Your task to perform on an android device: Clear the cart on target.com. Image 0: 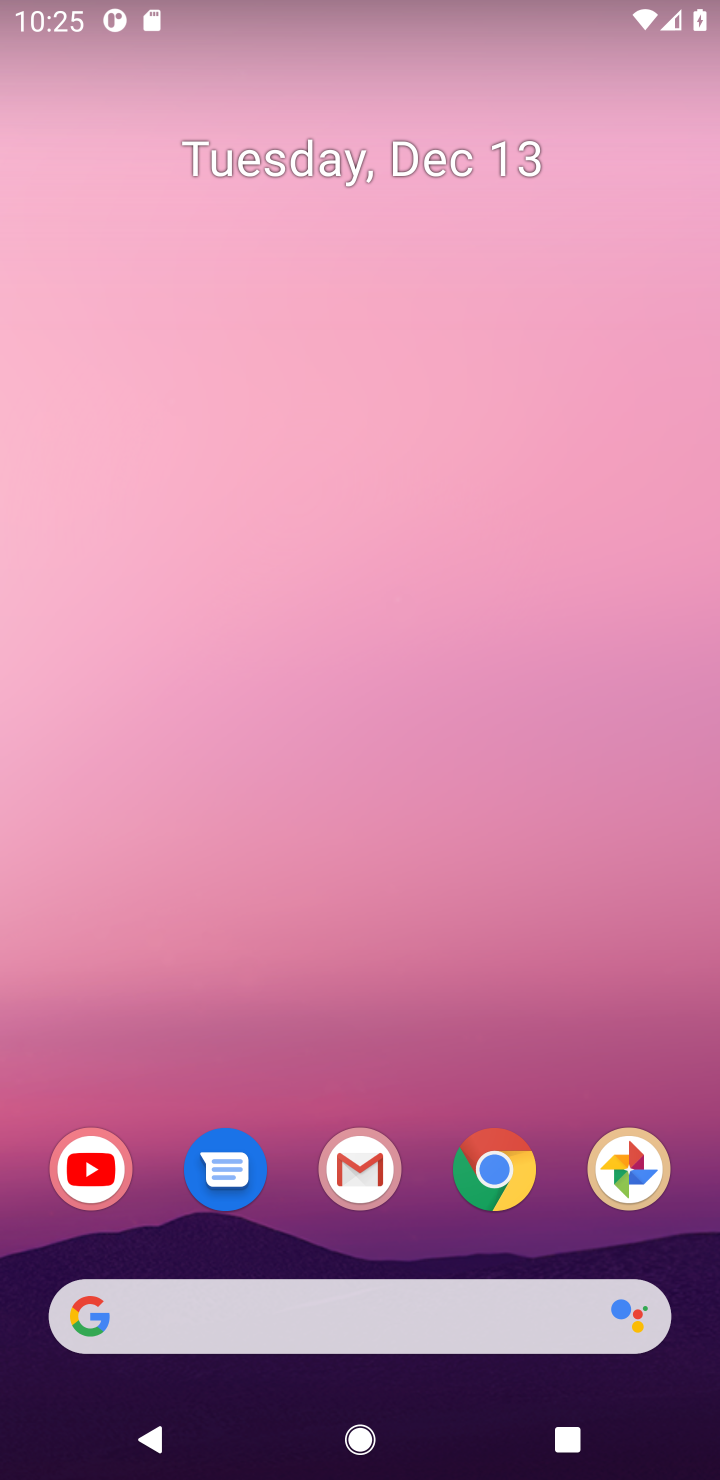
Step 0: click (468, 1294)
Your task to perform on an android device: Clear the cart on target.com. Image 1: 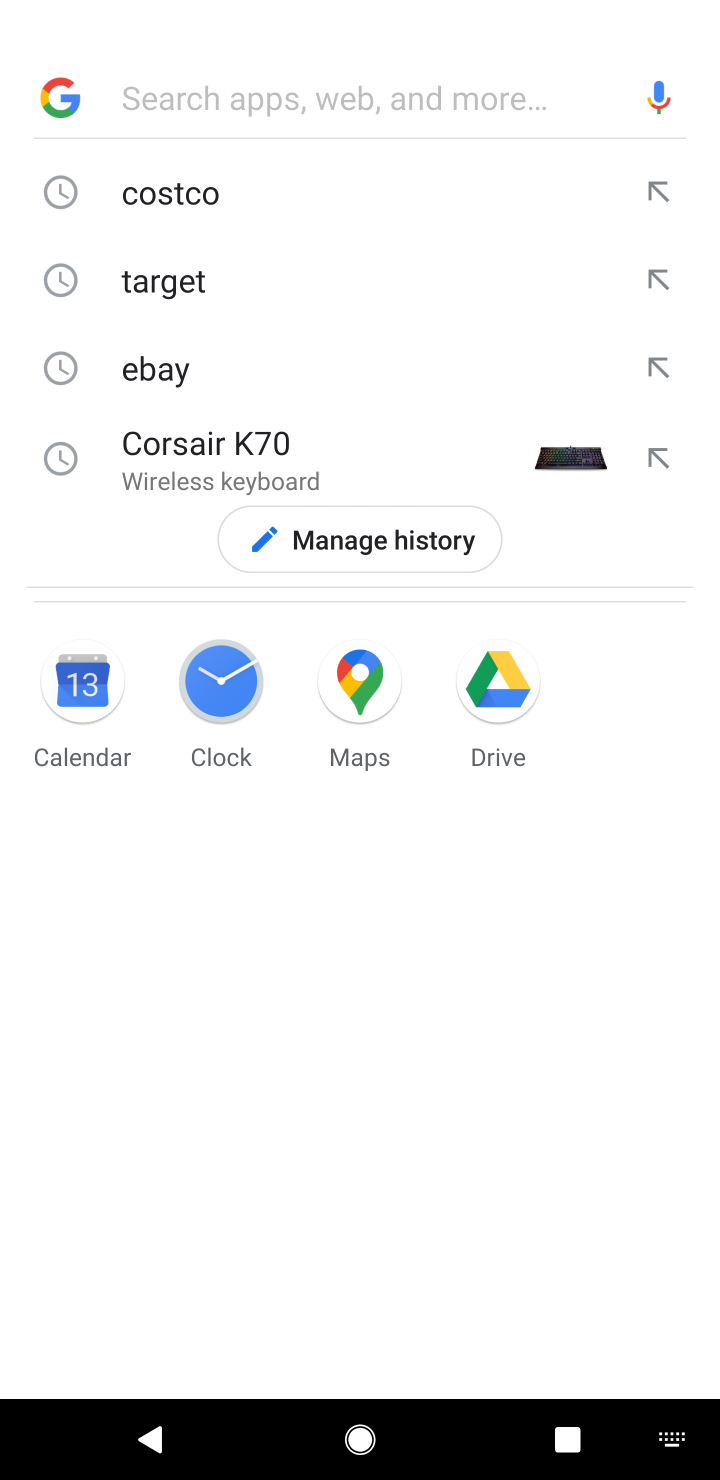
Step 1: type "target"
Your task to perform on an android device: Clear the cart on target.com. Image 2: 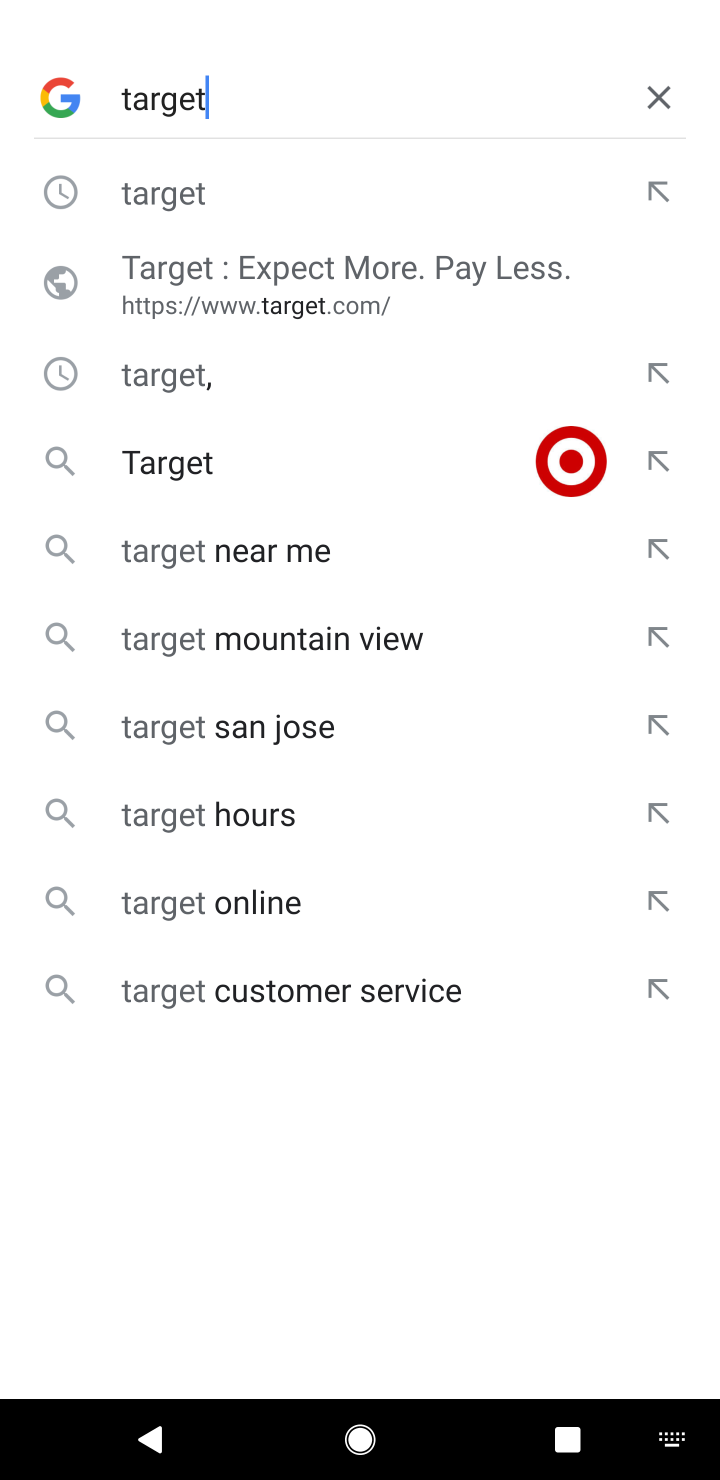
Step 2: click (197, 438)
Your task to perform on an android device: Clear the cart on target.com. Image 3: 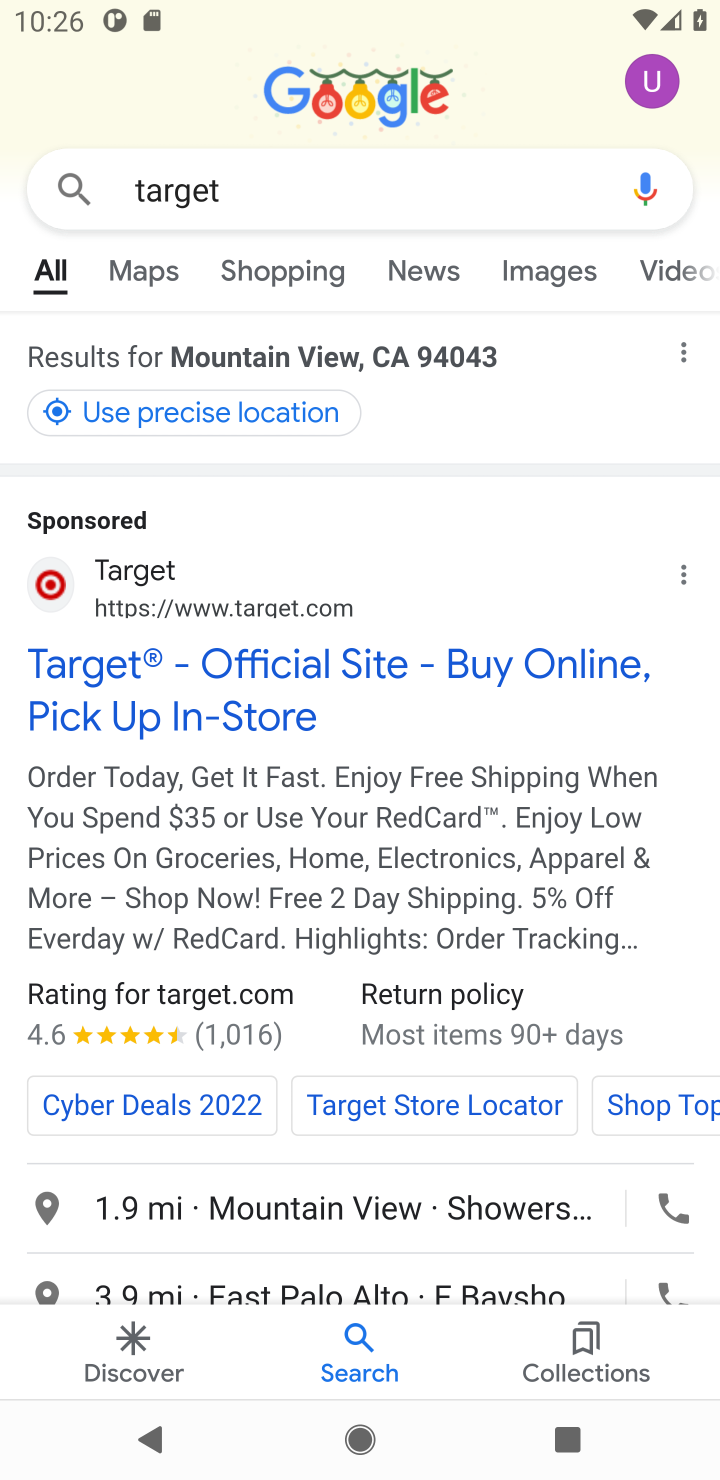
Step 3: click (120, 694)
Your task to perform on an android device: Clear the cart on target.com. Image 4: 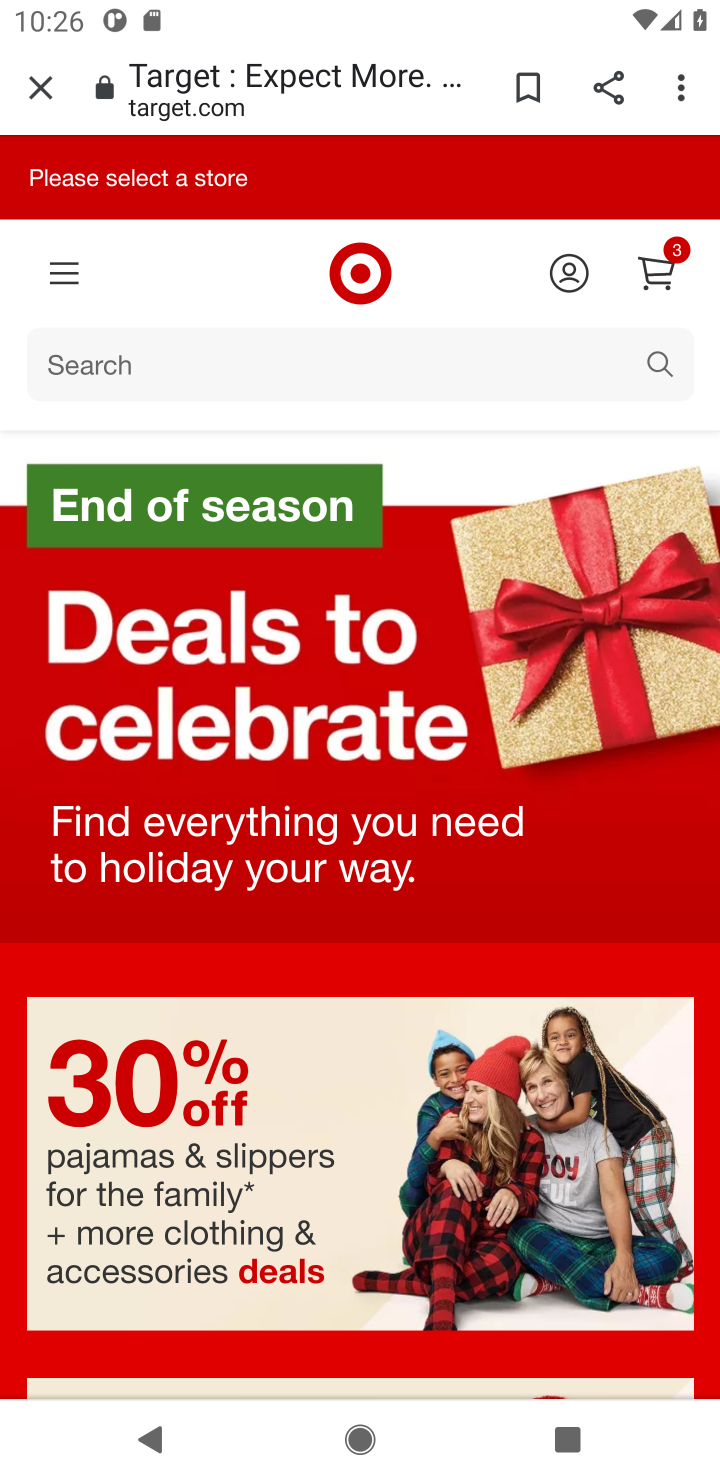
Step 4: click (670, 258)
Your task to perform on an android device: Clear the cart on target.com. Image 5: 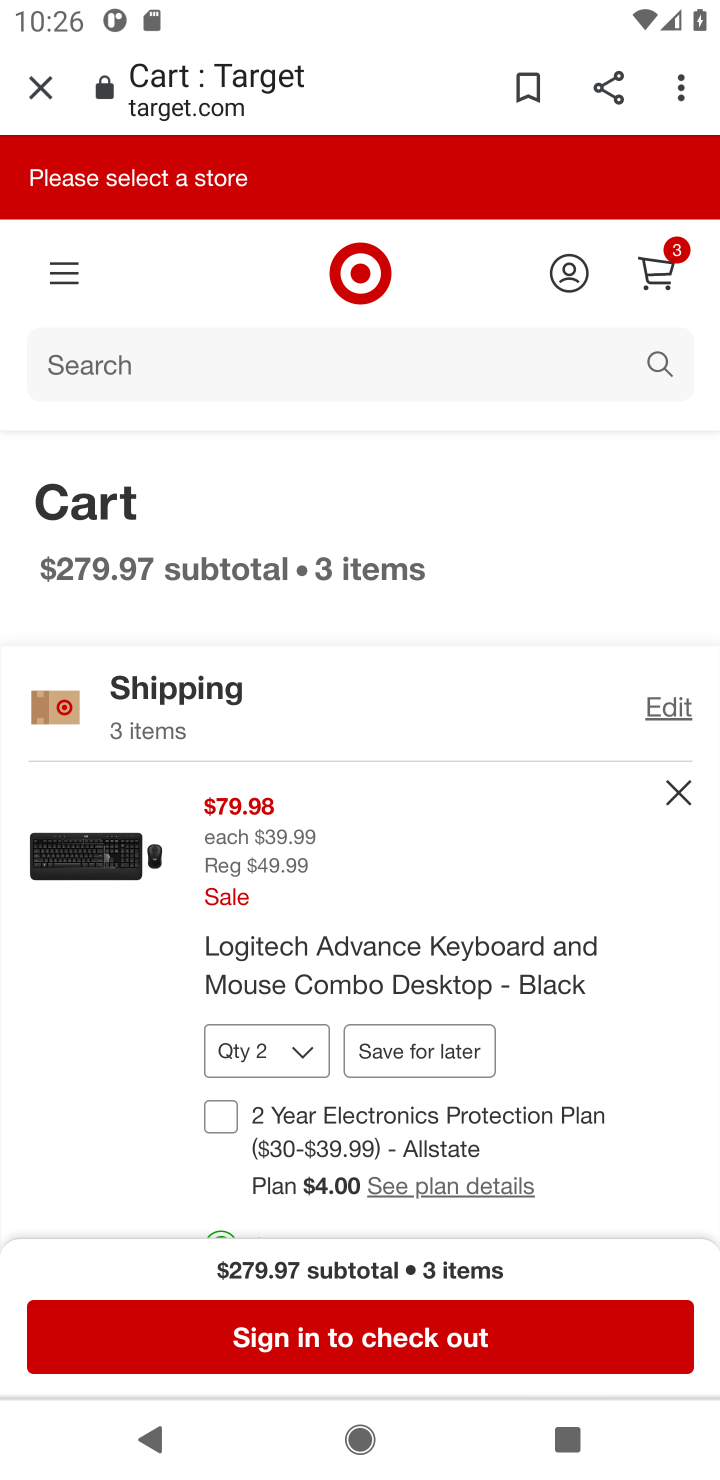
Step 5: click (665, 805)
Your task to perform on an android device: Clear the cart on target.com. Image 6: 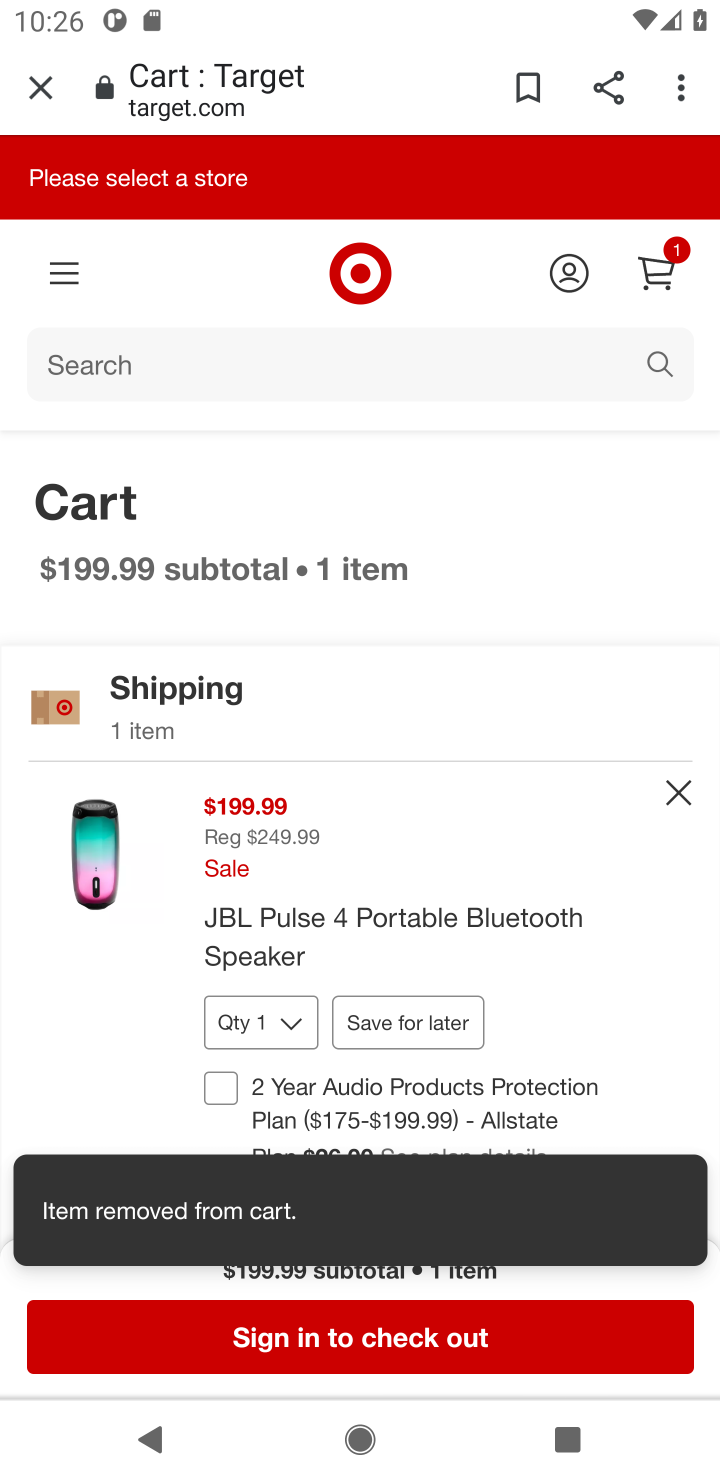
Step 6: click (665, 805)
Your task to perform on an android device: Clear the cart on target.com. Image 7: 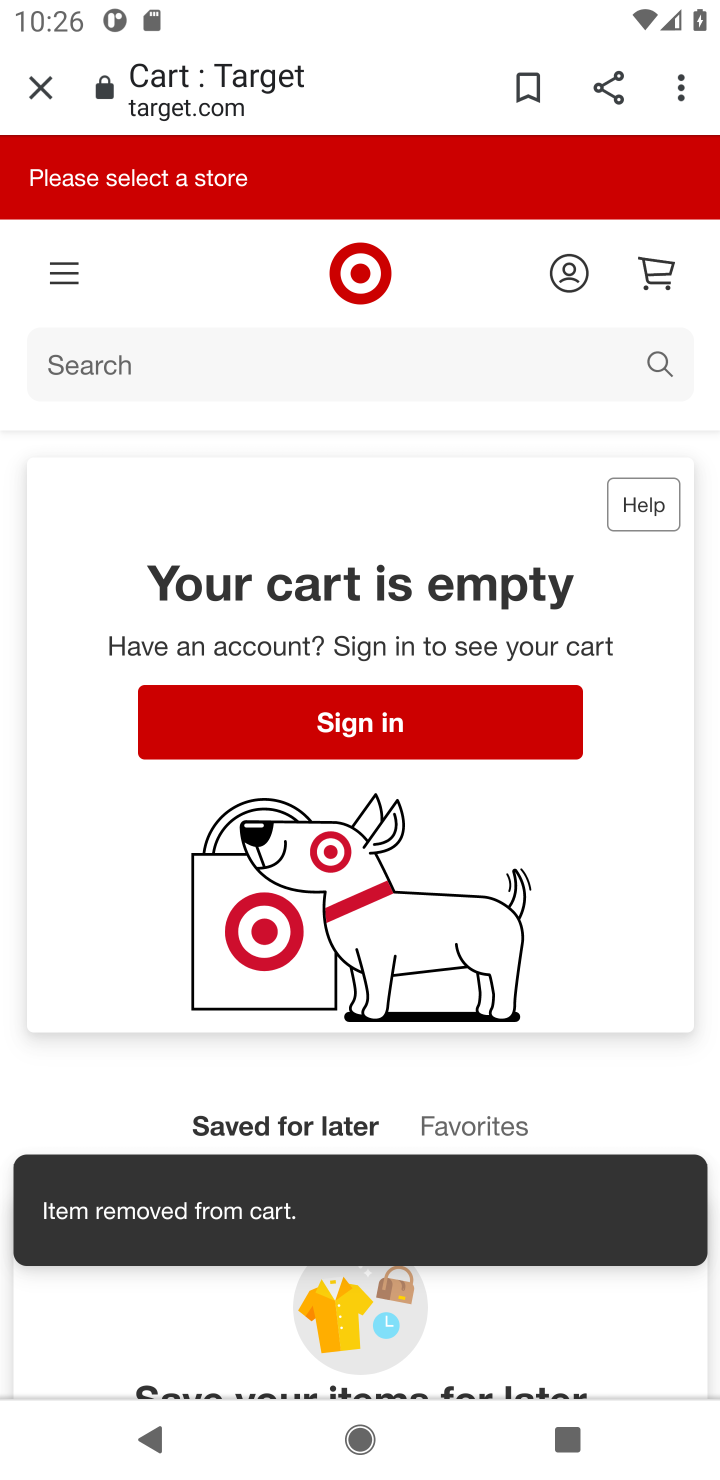
Step 7: task complete